Your task to perform on an android device: find which apps use the phone's location Image 0: 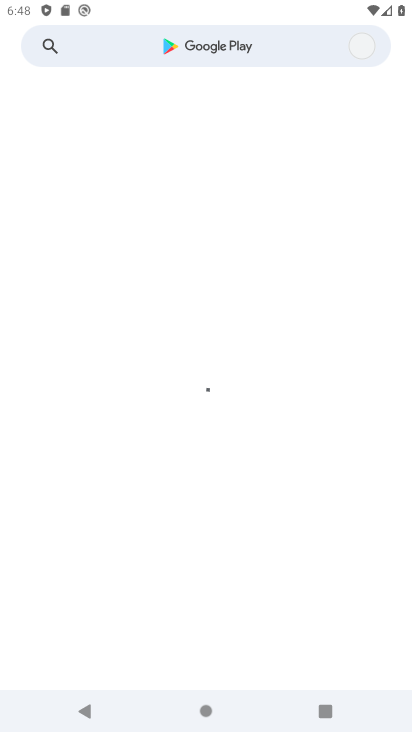
Step 0: press home button
Your task to perform on an android device: find which apps use the phone's location Image 1: 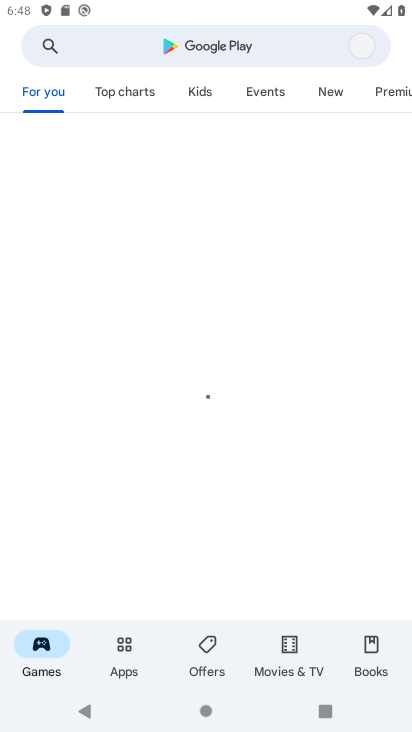
Step 1: drag from (327, 649) to (223, 8)
Your task to perform on an android device: find which apps use the phone's location Image 2: 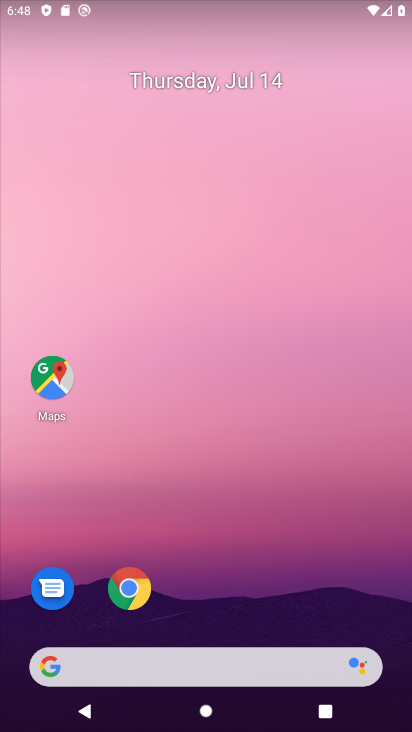
Step 2: drag from (350, 602) to (118, 1)
Your task to perform on an android device: find which apps use the phone's location Image 3: 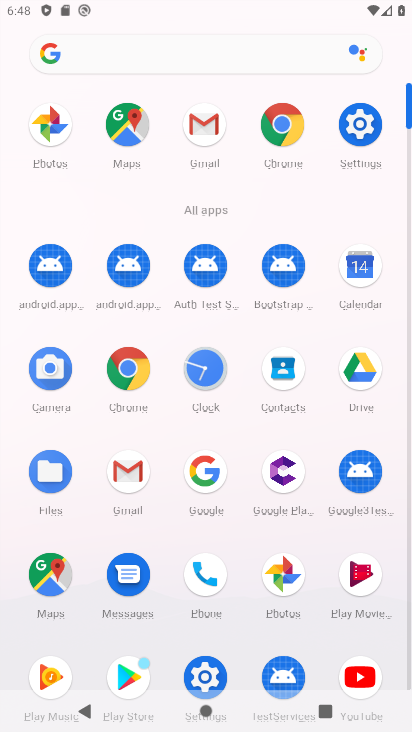
Step 3: click (345, 115)
Your task to perform on an android device: find which apps use the phone's location Image 4: 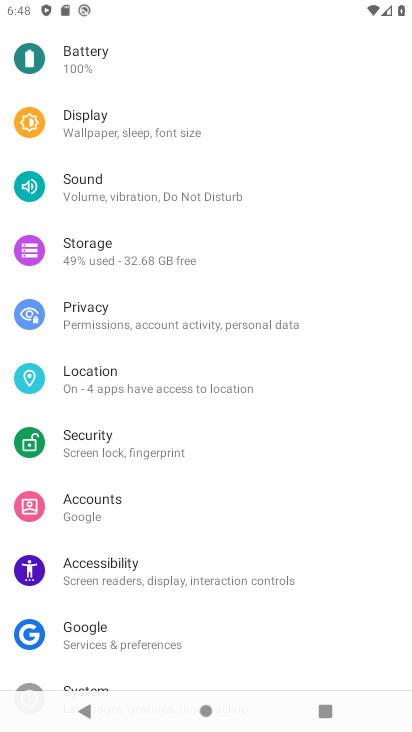
Step 4: click (110, 392)
Your task to perform on an android device: find which apps use the phone's location Image 5: 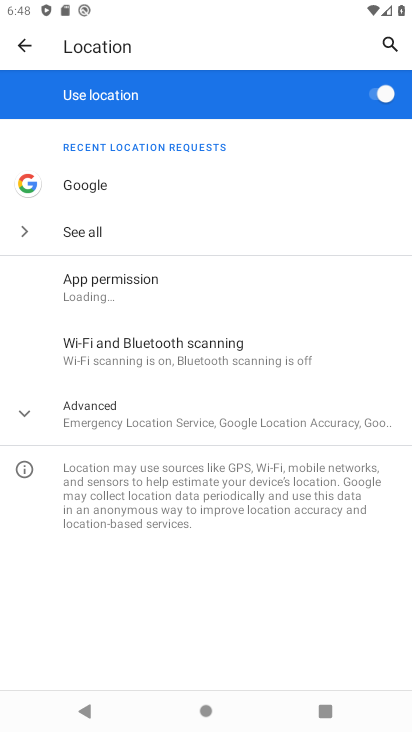
Step 5: click (120, 283)
Your task to perform on an android device: find which apps use the phone's location Image 6: 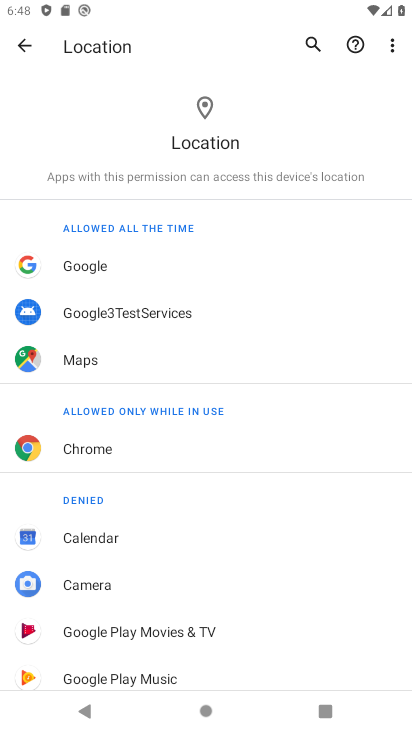
Step 6: drag from (121, 616) to (40, 166)
Your task to perform on an android device: find which apps use the phone's location Image 7: 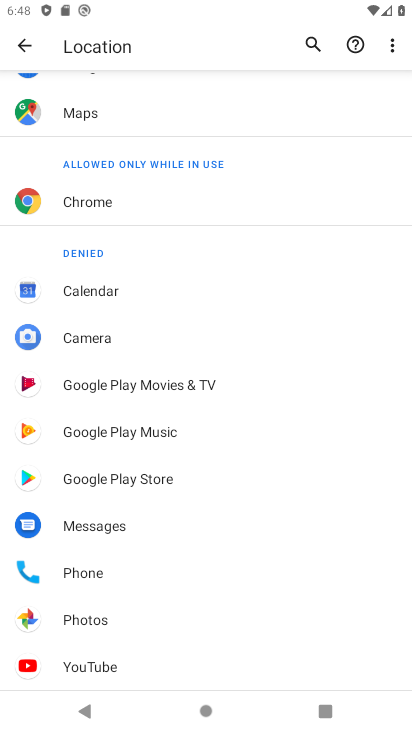
Step 7: click (94, 566)
Your task to perform on an android device: find which apps use the phone's location Image 8: 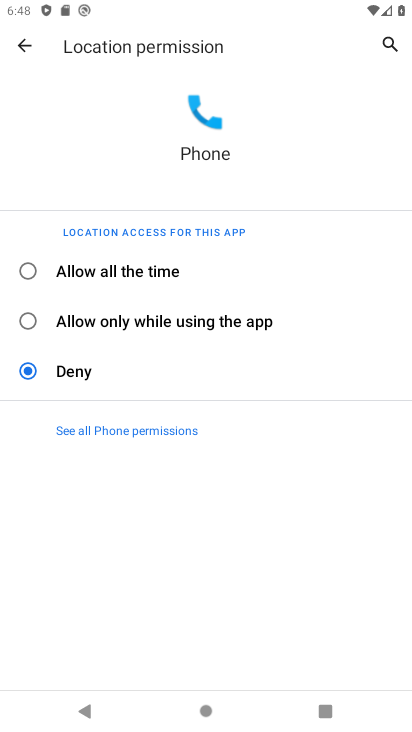
Step 8: click (114, 284)
Your task to perform on an android device: find which apps use the phone's location Image 9: 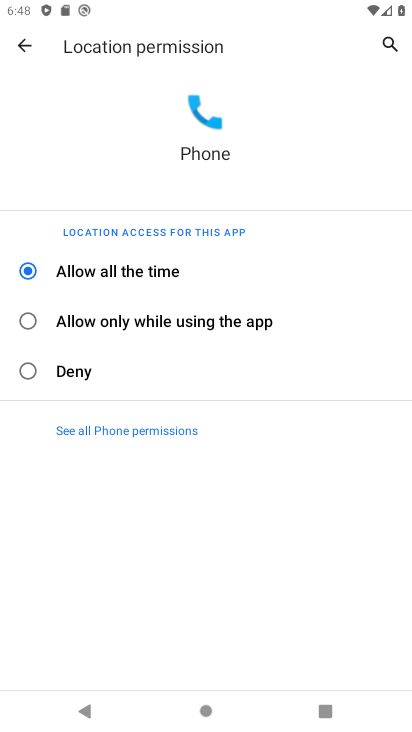
Step 9: task complete